Your task to perform on an android device: change the clock style Image 0: 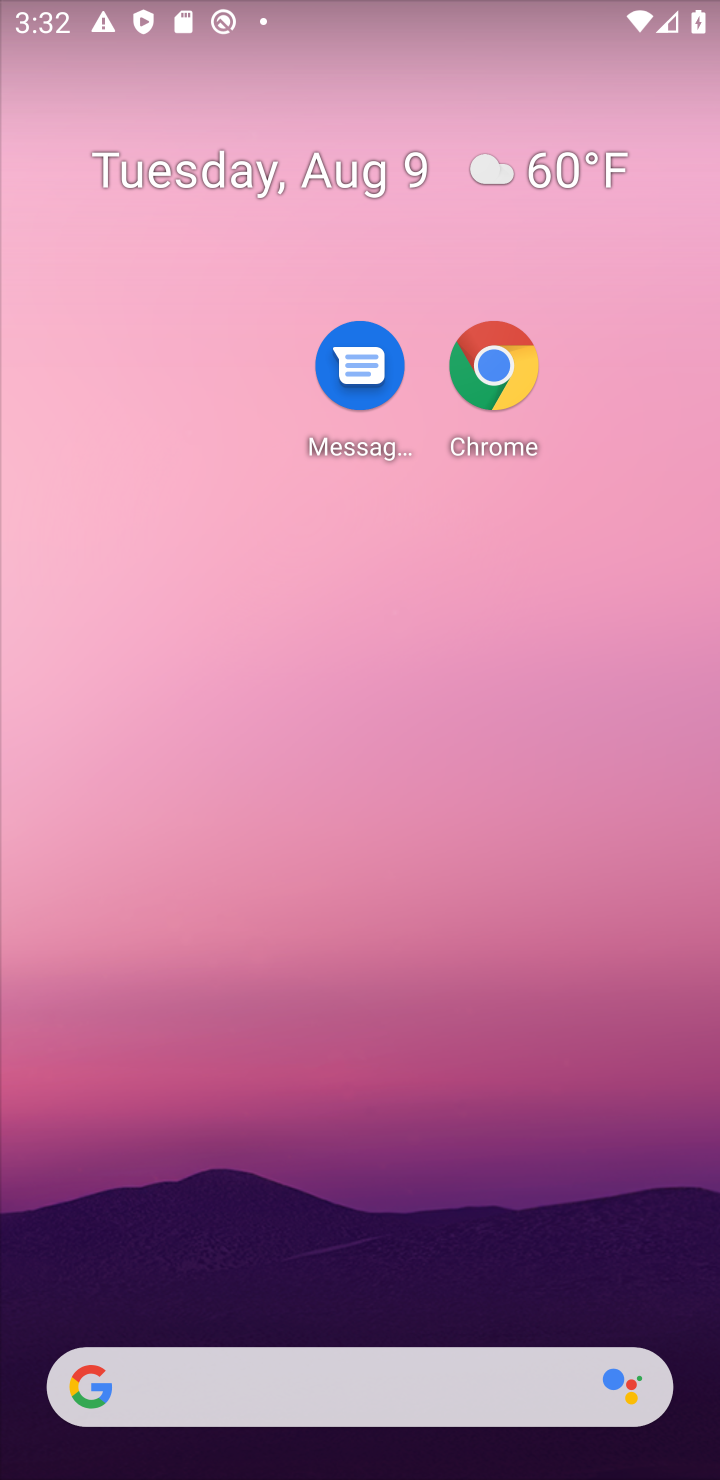
Step 0: drag from (424, 1213) to (404, 458)
Your task to perform on an android device: change the clock style Image 1: 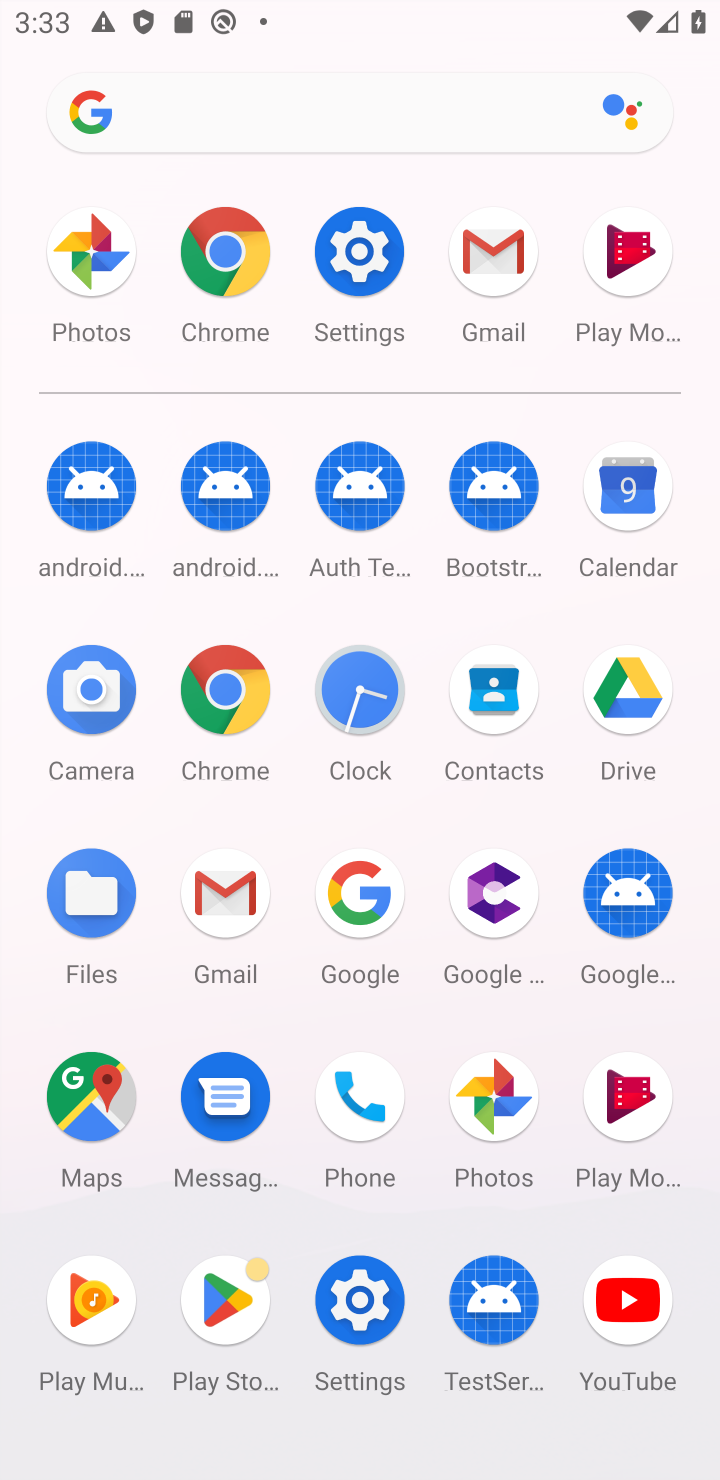
Step 1: click (303, 693)
Your task to perform on an android device: change the clock style Image 2: 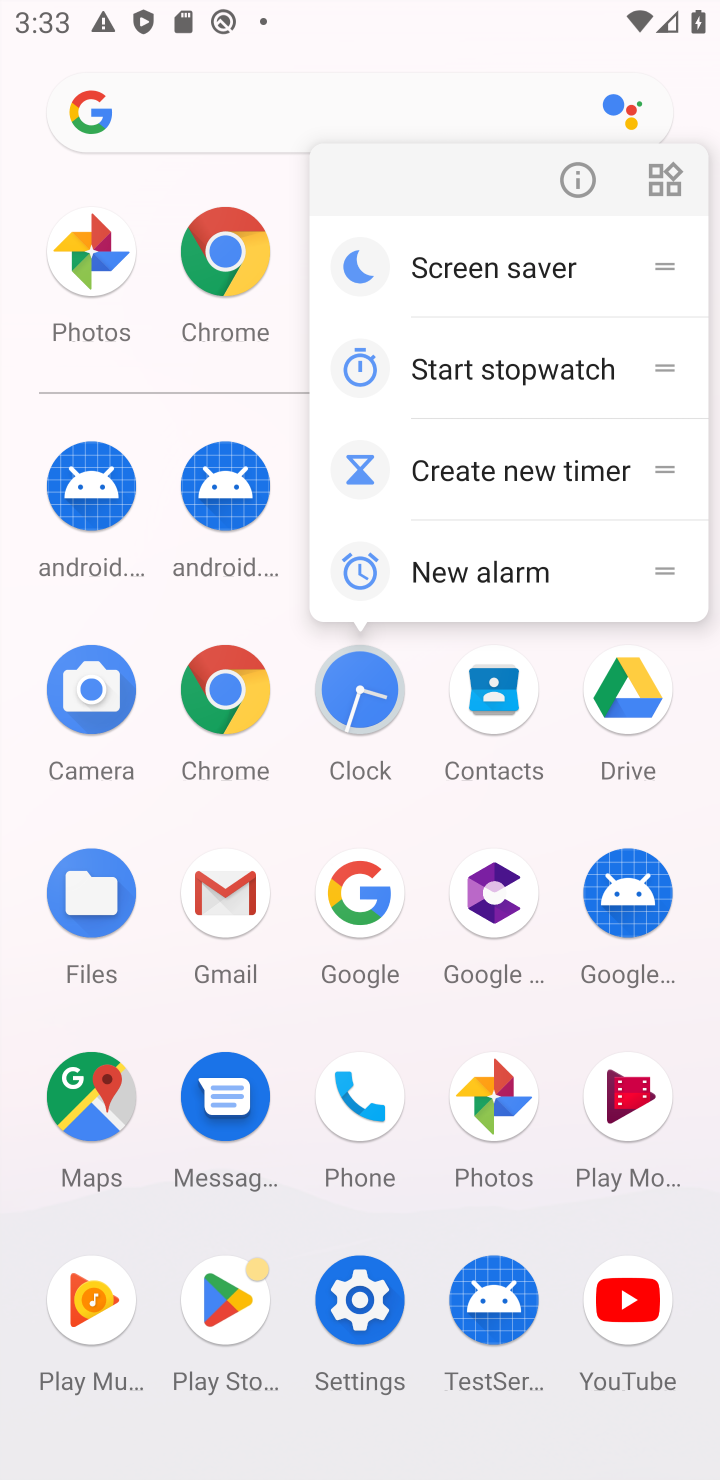
Step 2: click (386, 691)
Your task to perform on an android device: change the clock style Image 3: 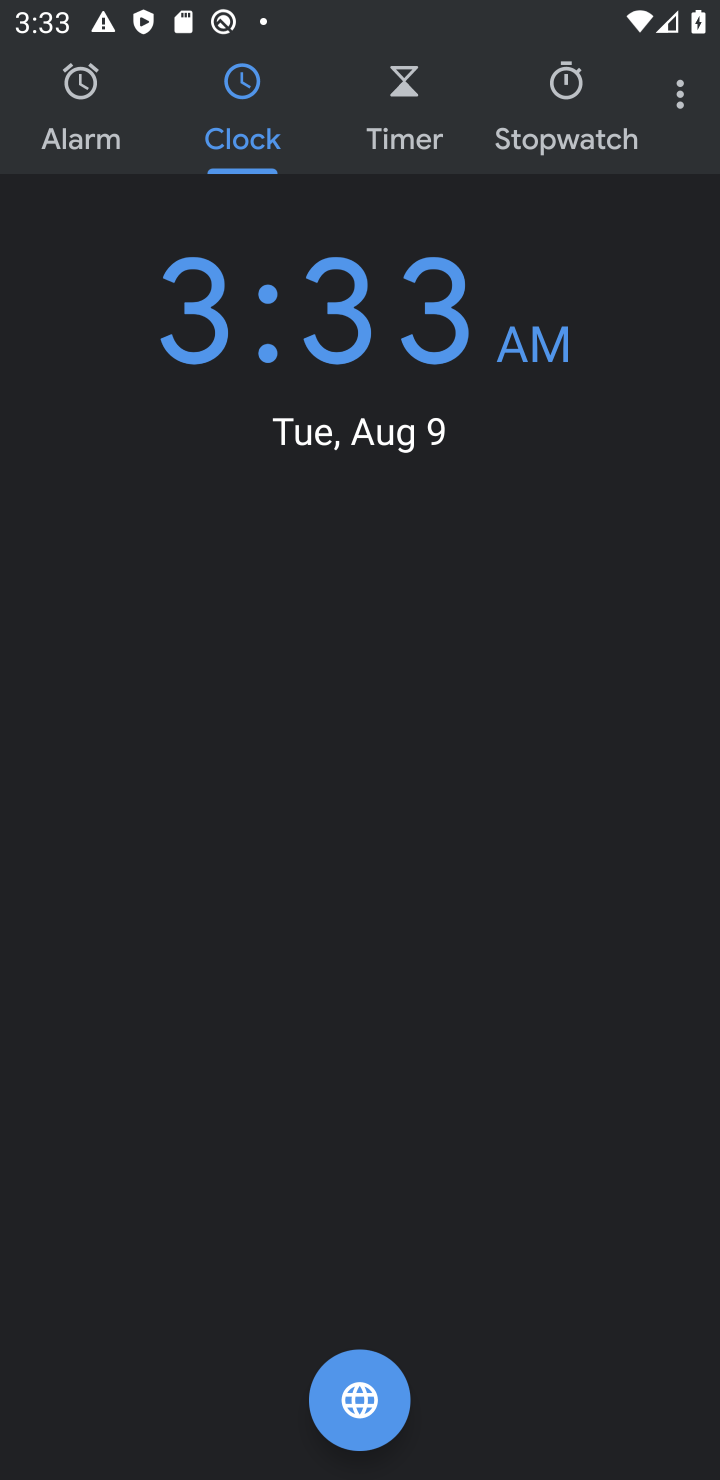
Step 3: click (686, 104)
Your task to perform on an android device: change the clock style Image 4: 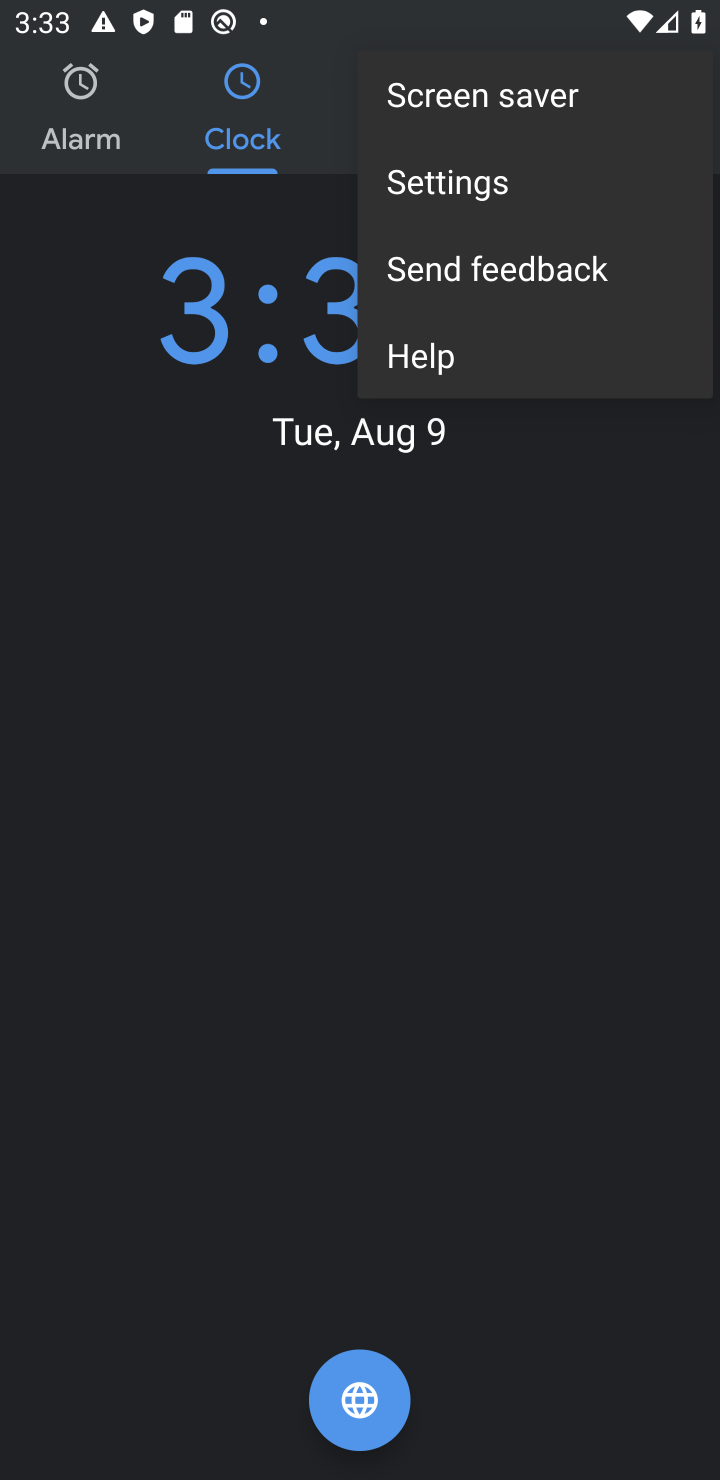
Step 4: click (497, 177)
Your task to perform on an android device: change the clock style Image 5: 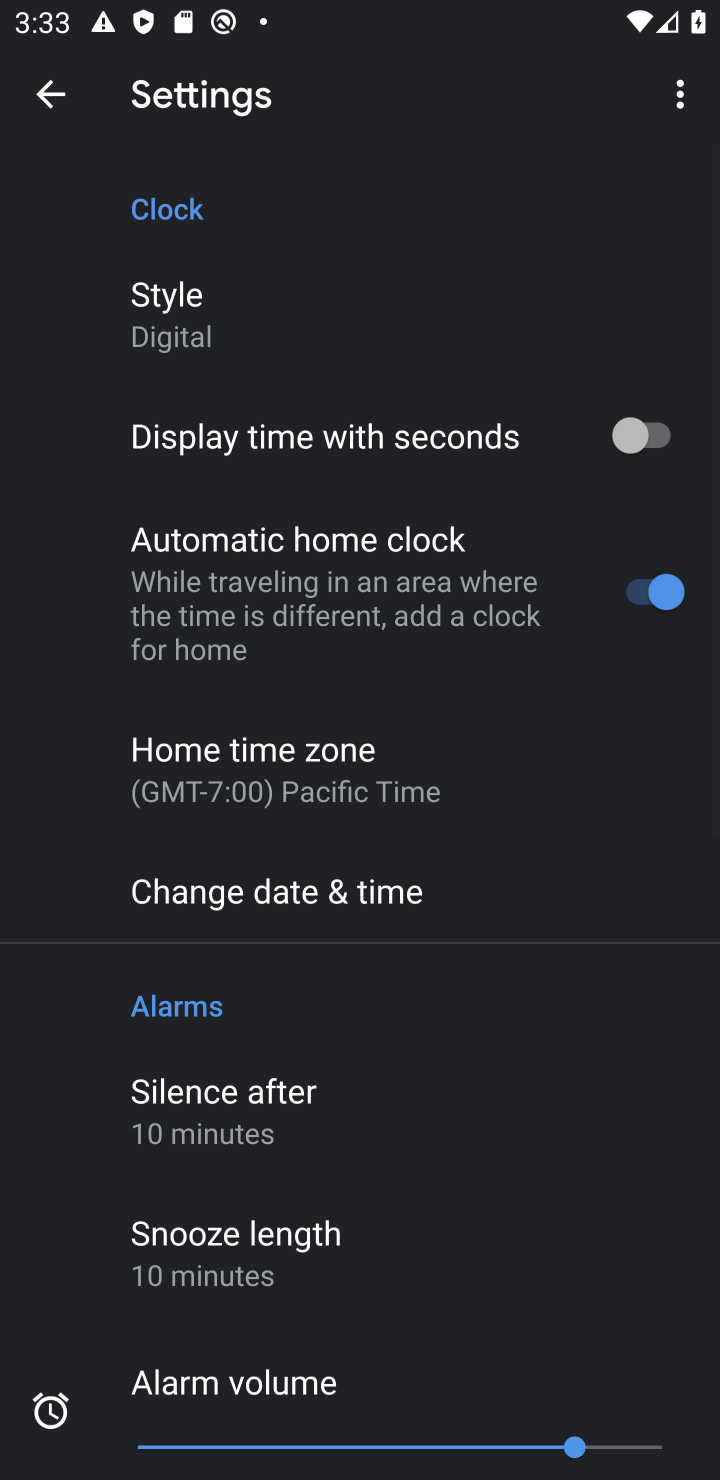
Step 5: click (258, 322)
Your task to perform on an android device: change the clock style Image 6: 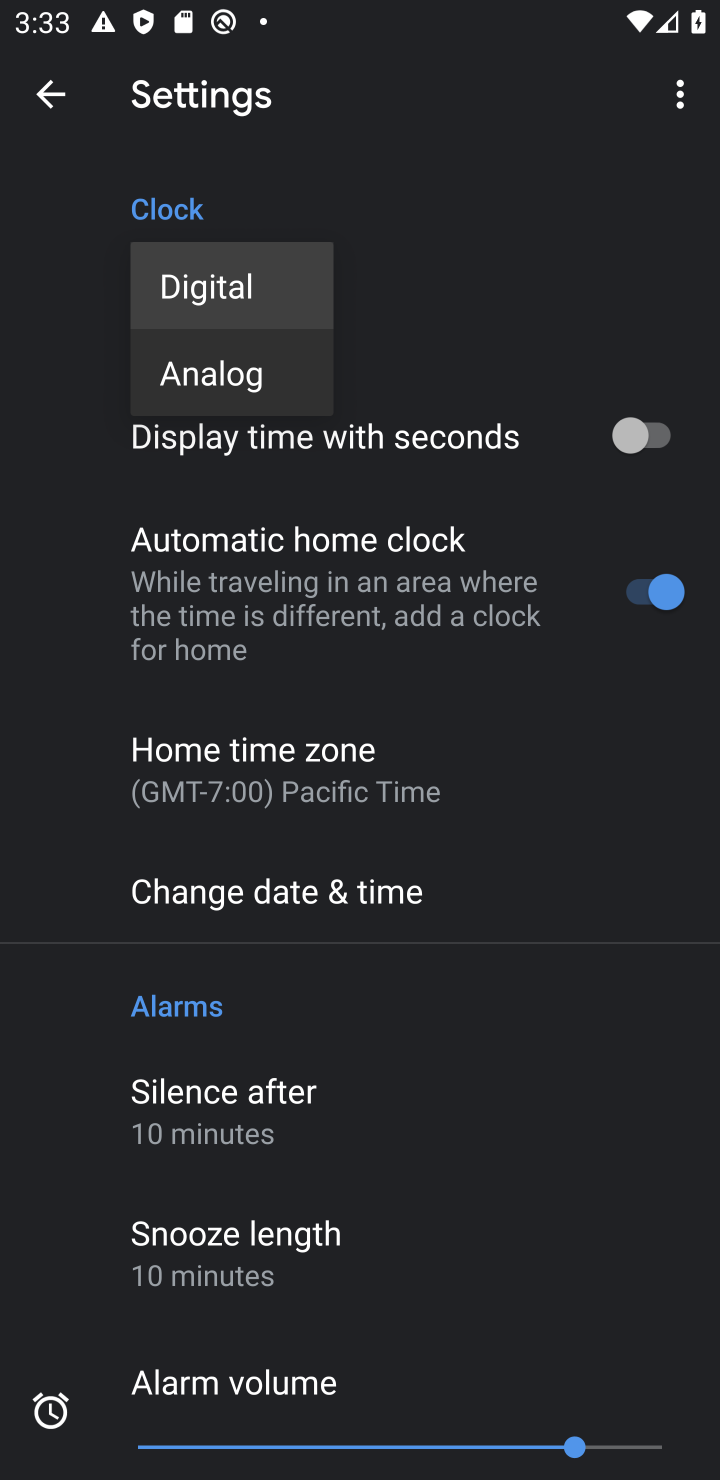
Step 6: click (259, 375)
Your task to perform on an android device: change the clock style Image 7: 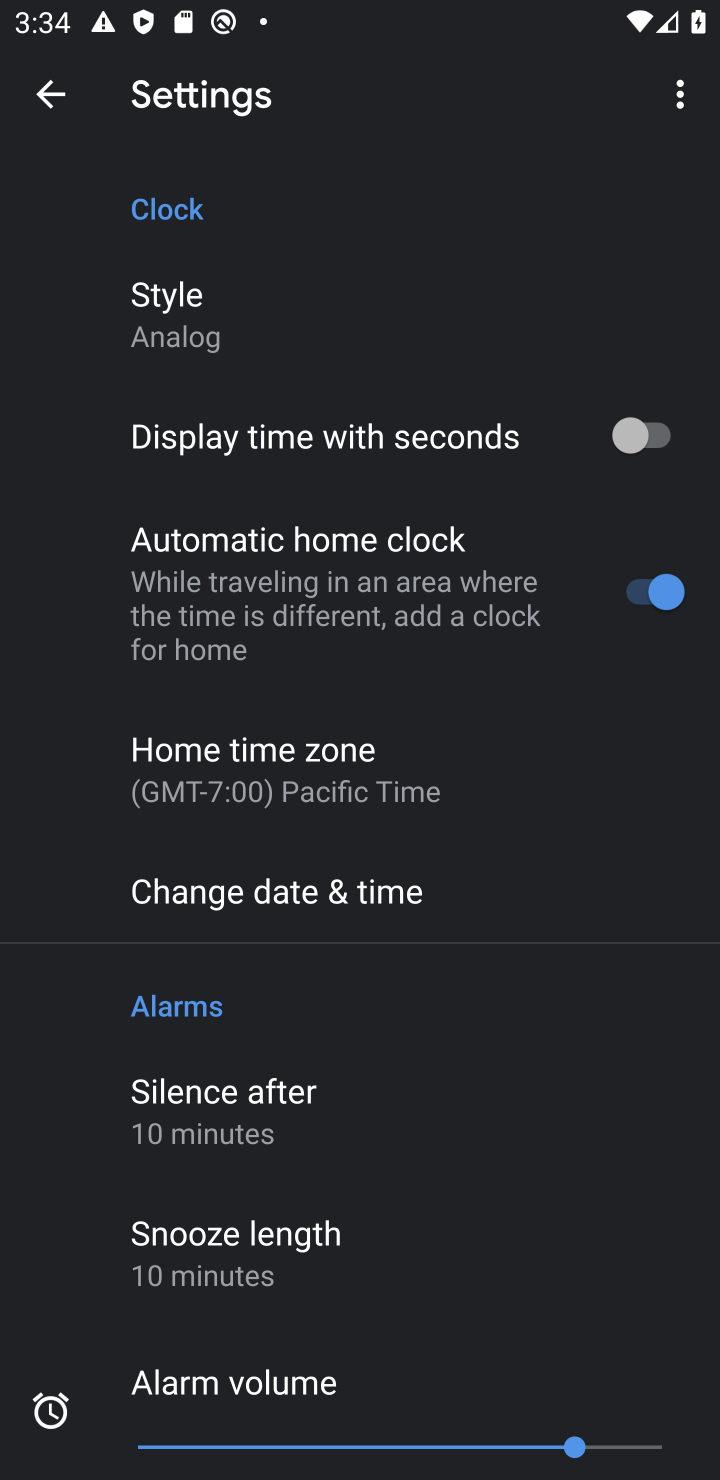
Step 7: task complete